Your task to perform on an android device: Open my contact list Image 0: 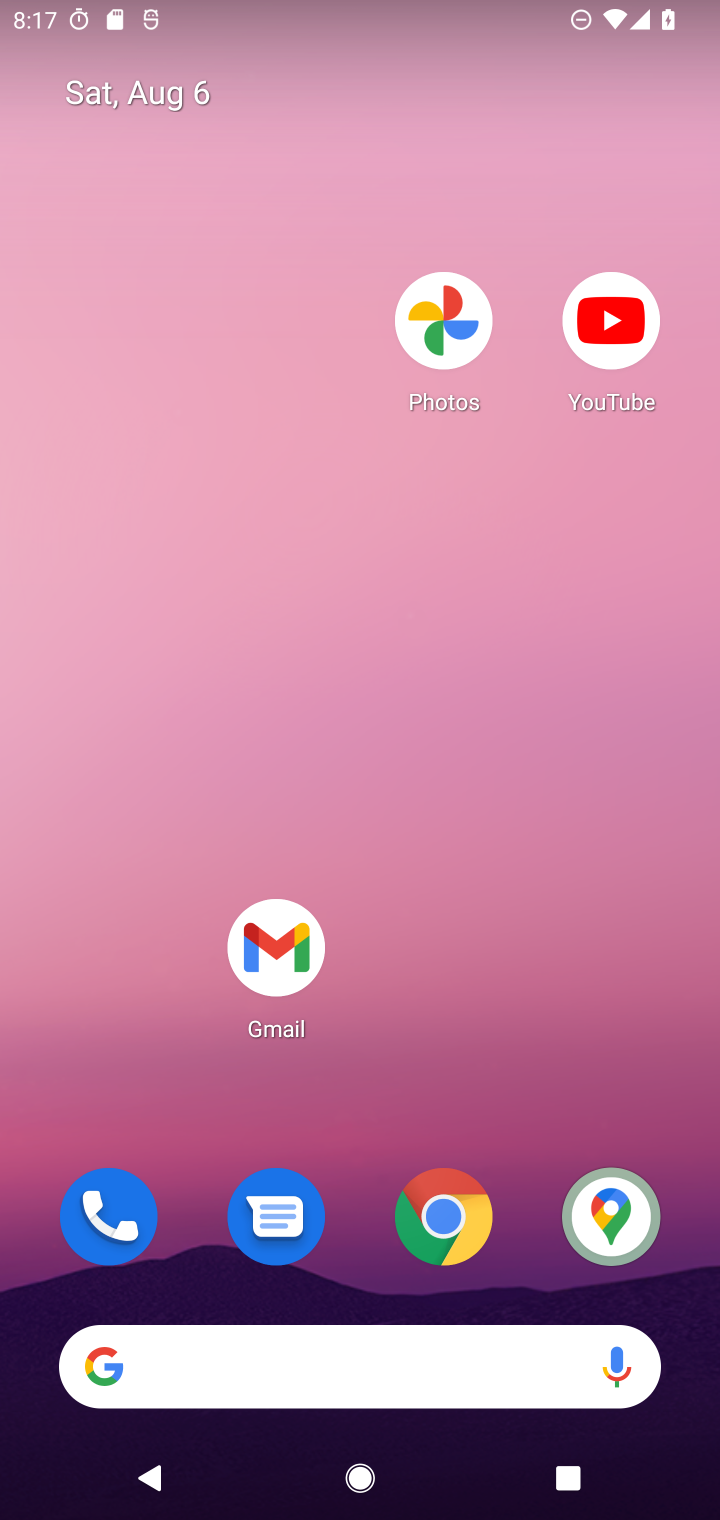
Step 0: drag from (473, 1033) to (259, 12)
Your task to perform on an android device: Open my contact list Image 1: 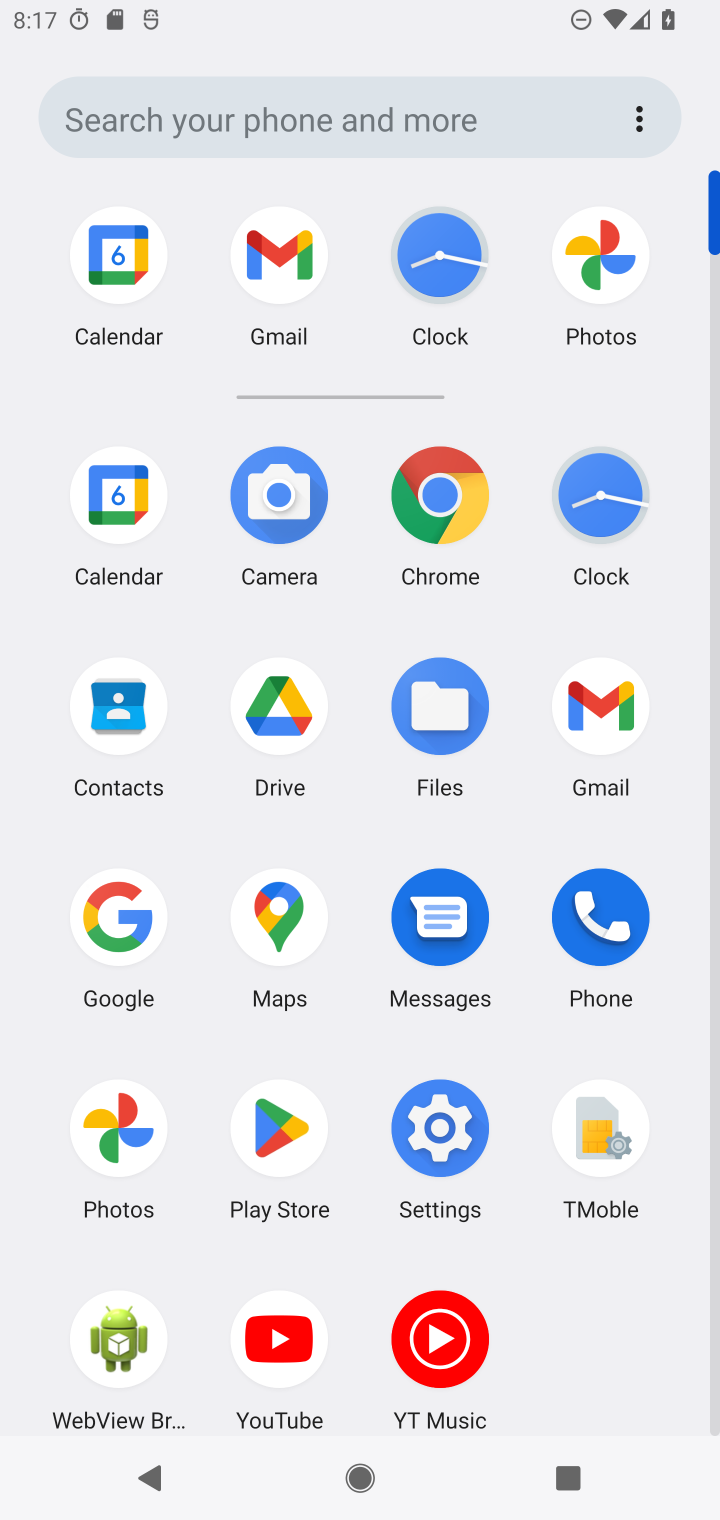
Step 1: click (122, 717)
Your task to perform on an android device: Open my contact list Image 2: 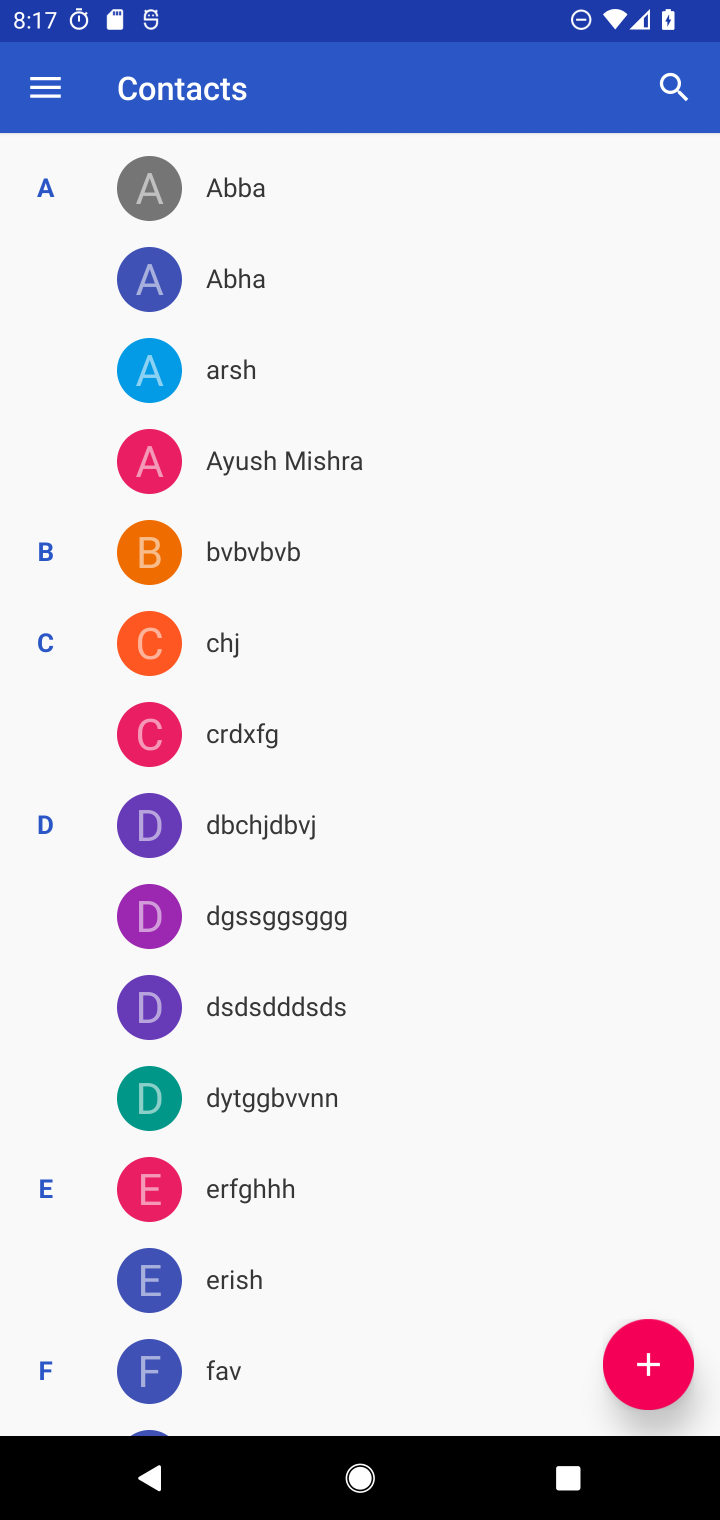
Step 2: task complete